Your task to perform on an android device: toggle improve location accuracy Image 0: 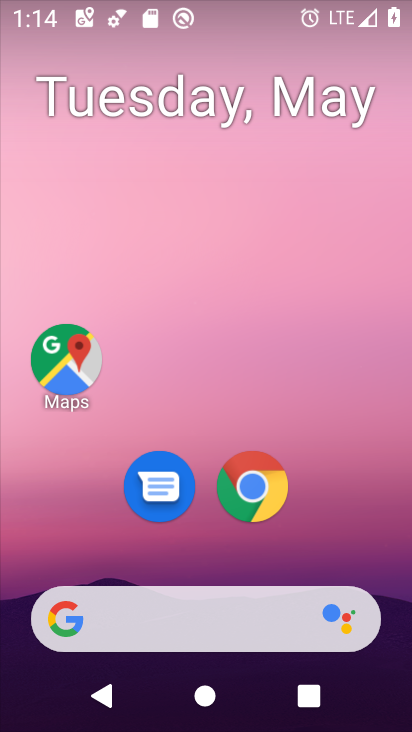
Step 0: drag from (23, 636) to (379, 289)
Your task to perform on an android device: toggle improve location accuracy Image 1: 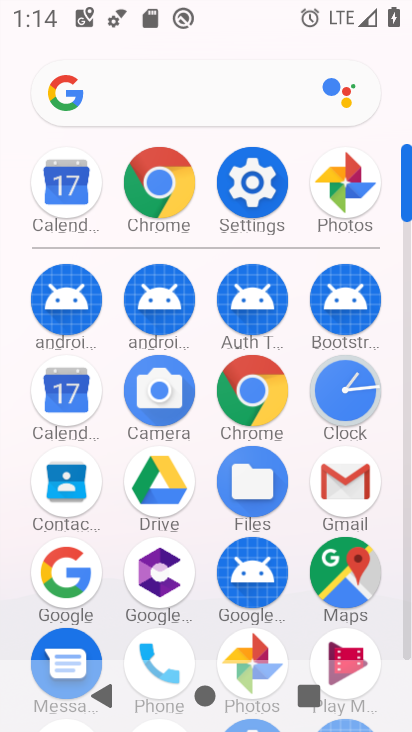
Step 1: click (270, 188)
Your task to perform on an android device: toggle improve location accuracy Image 2: 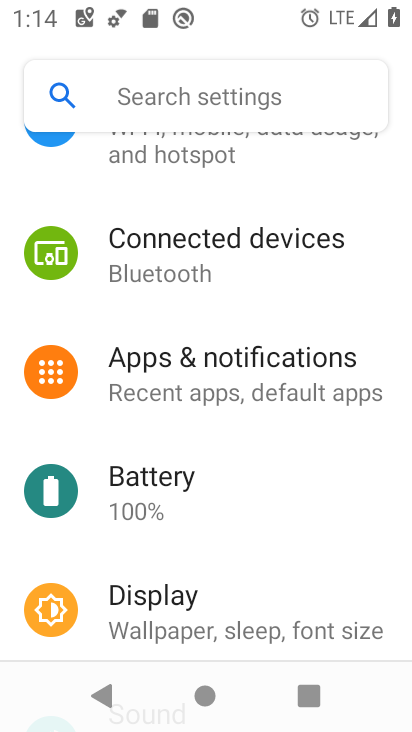
Step 2: drag from (158, 182) to (148, 646)
Your task to perform on an android device: toggle improve location accuracy Image 3: 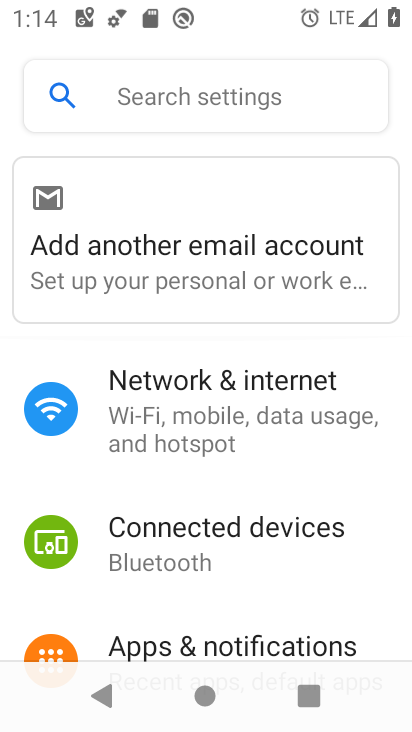
Step 3: drag from (148, 646) to (290, 133)
Your task to perform on an android device: toggle improve location accuracy Image 4: 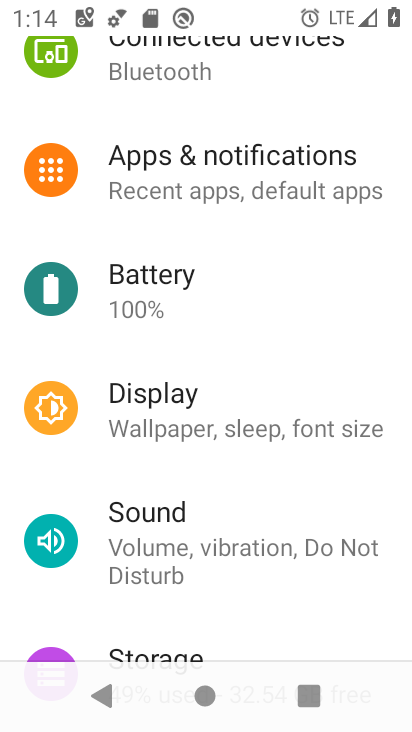
Step 4: drag from (92, 509) to (254, 256)
Your task to perform on an android device: toggle improve location accuracy Image 5: 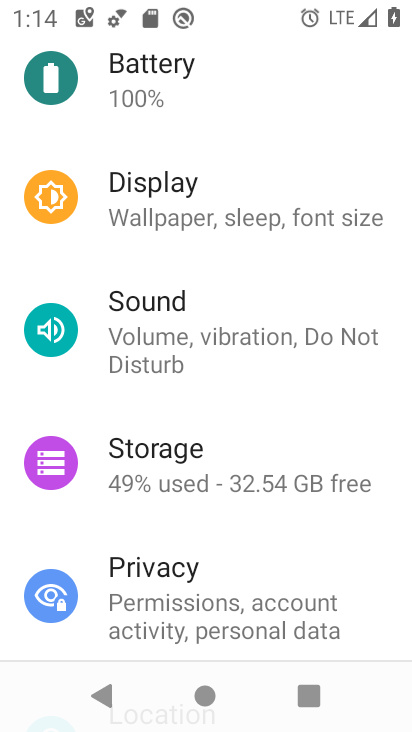
Step 5: drag from (16, 568) to (358, 159)
Your task to perform on an android device: toggle improve location accuracy Image 6: 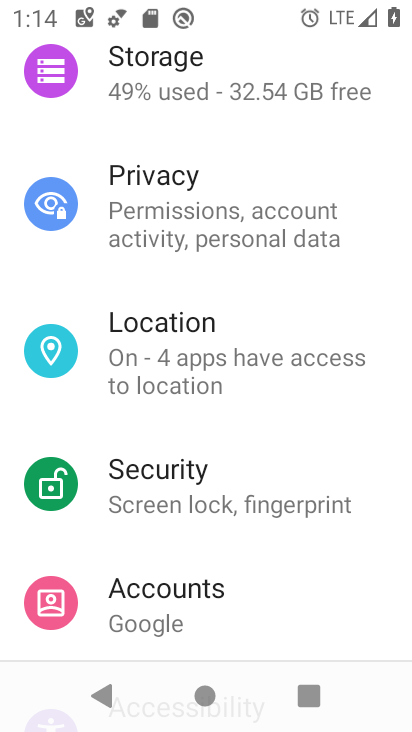
Step 6: click (272, 336)
Your task to perform on an android device: toggle improve location accuracy Image 7: 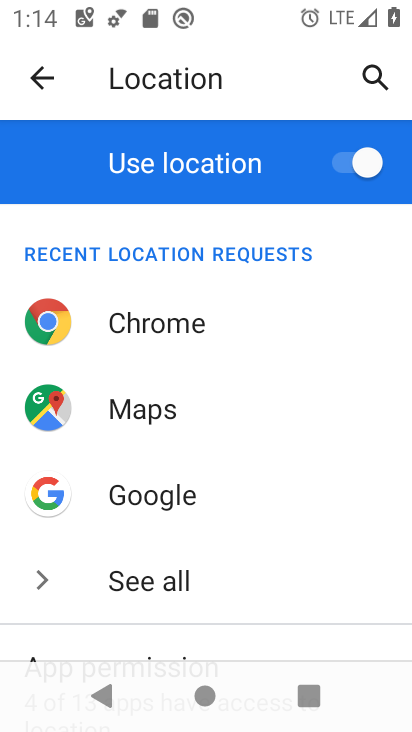
Step 7: drag from (71, 572) to (278, 185)
Your task to perform on an android device: toggle improve location accuracy Image 8: 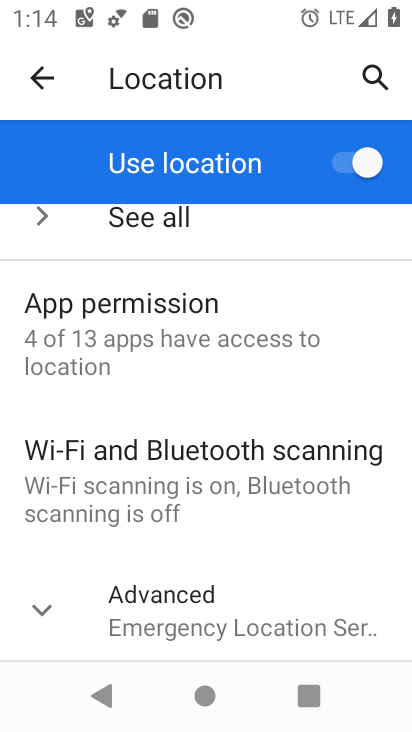
Step 8: click (250, 616)
Your task to perform on an android device: toggle improve location accuracy Image 9: 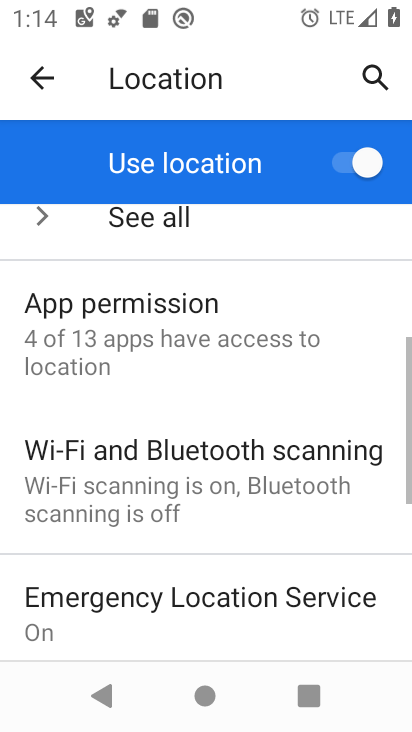
Step 9: drag from (27, 617) to (290, 186)
Your task to perform on an android device: toggle improve location accuracy Image 10: 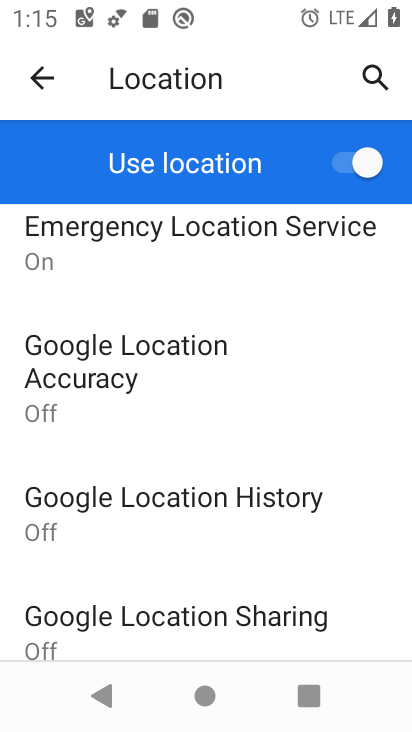
Step 10: drag from (156, 545) to (216, 389)
Your task to perform on an android device: toggle improve location accuracy Image 11: 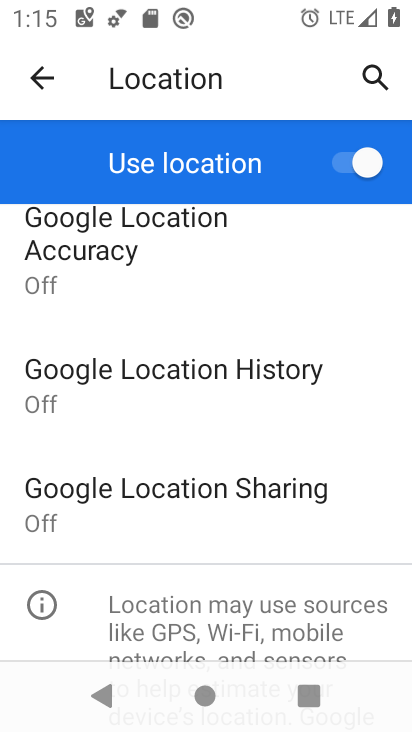
Step 11: click (157, 242)
Your task to perform on an android device: toggle improve location accuracy Image 12: 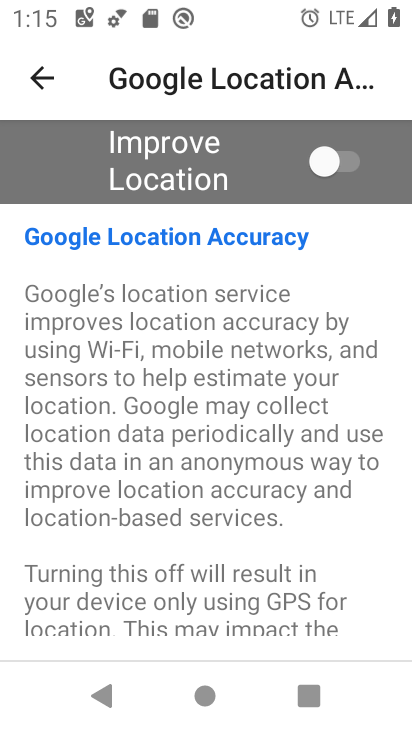
Step 12: click (311, 152)
Your task to perform on an android device: toggle improve location accuracy Image 13: 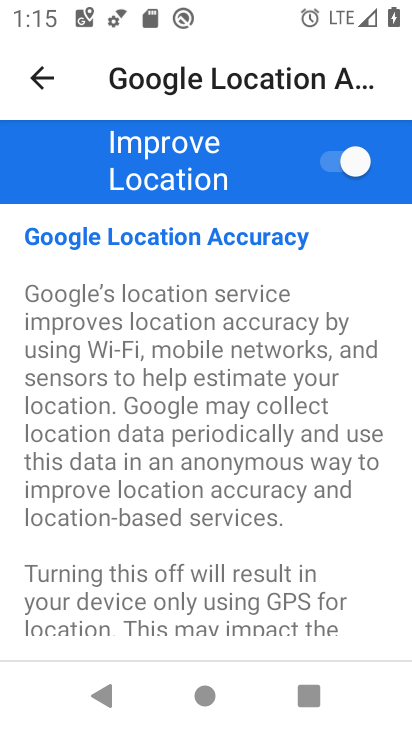
Step 13: task complete